Your task to perform on an android device: View the shopping cart on bestbuy.com. Image 0: 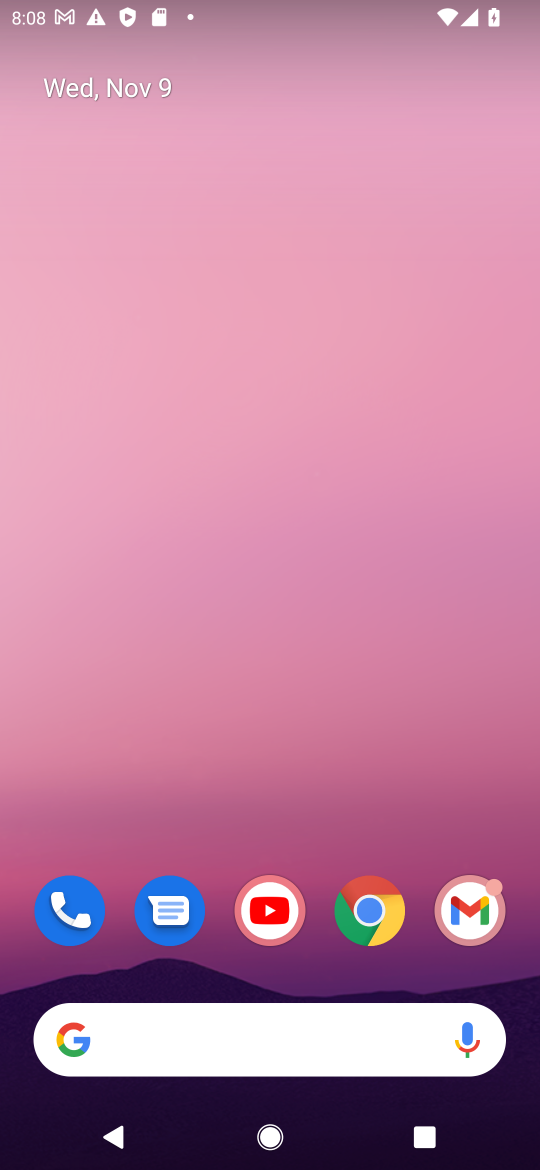
Step 0: click (377, 906)
Your task to perform on an android device: View the shopping cart on bestbuy.com. Image 1: 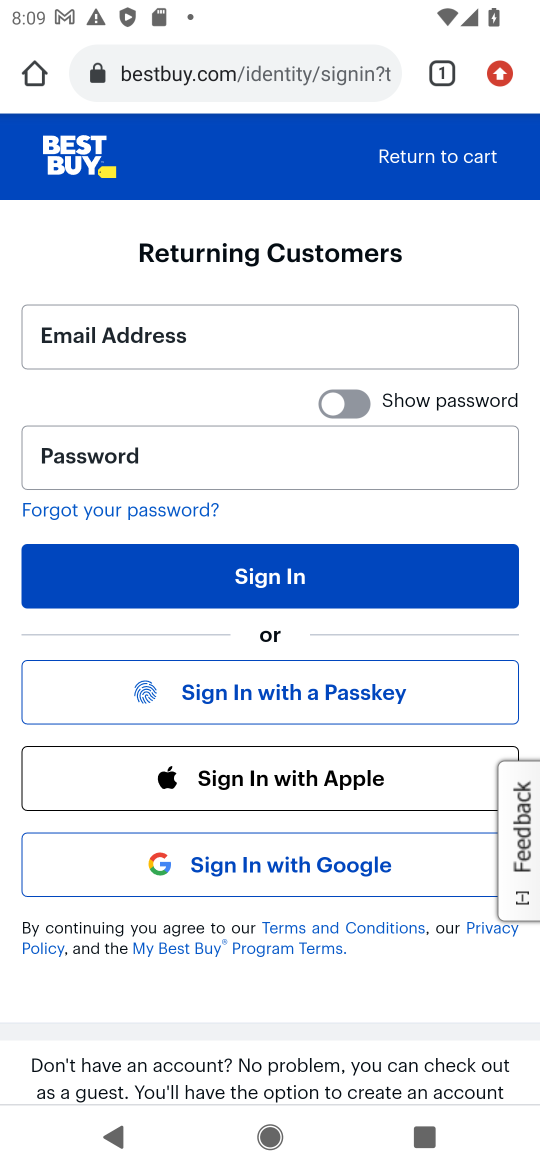
Step 1: click (439, 168)
Your task to perform on an android device: View the shopping cart on bestbuy.com. Image 2: 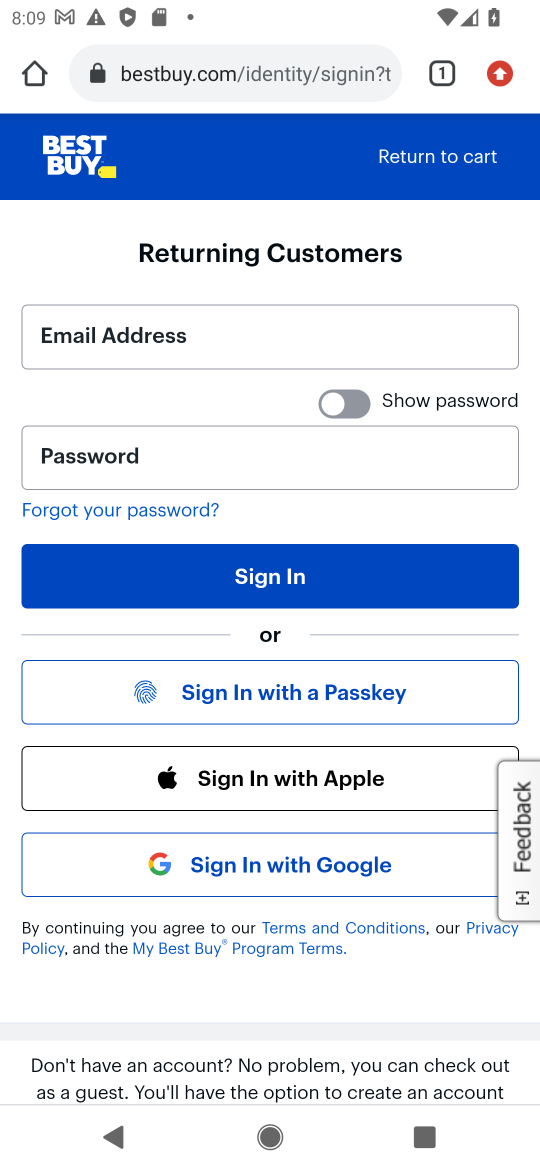
Step 2: click (403, 164)
Your task to perform on an android device: View the shopping cart on bestbuy.com. Image 3: 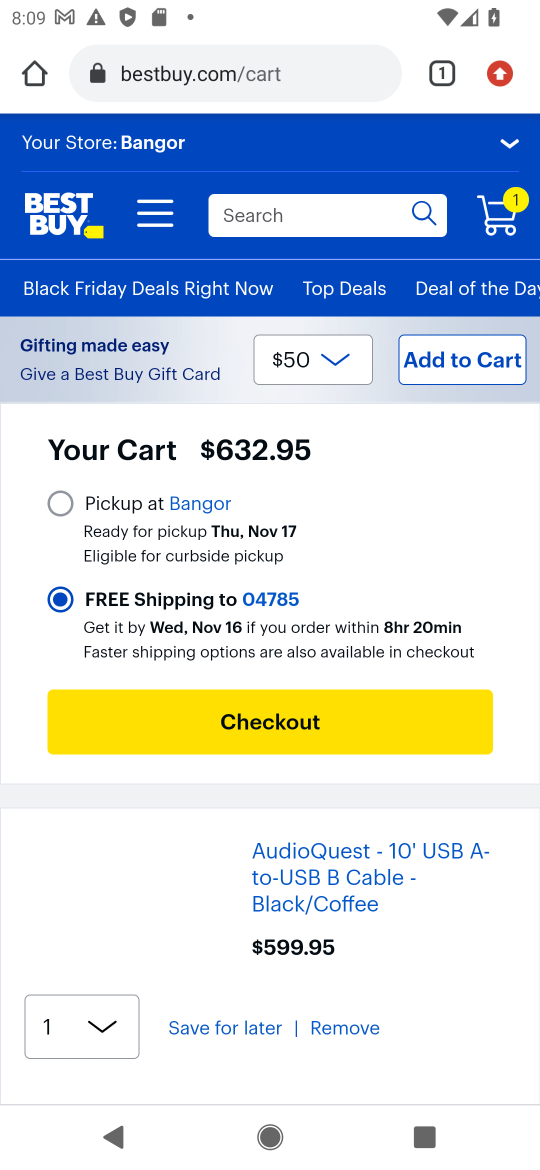
Step 3: click (491, 219)
Your task to perform on an android device: View the shopping cart on bestbuy.com. Image 4: 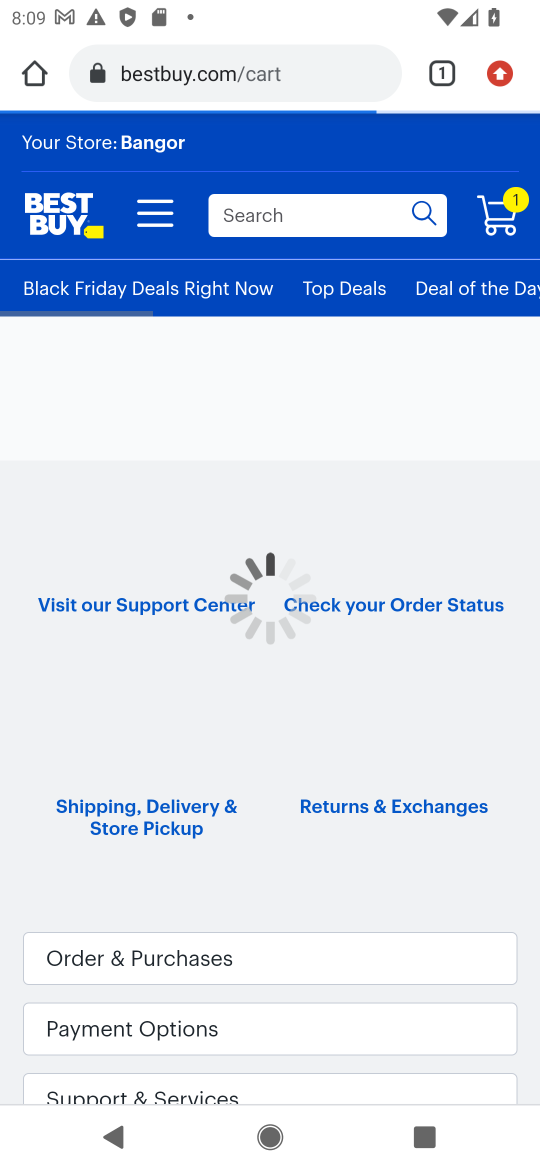
Step 4: task complete